Your task to perform on an android device: open app "Facebook Messenger" (install if not already installed), go to login, and select forgot password Image 0: 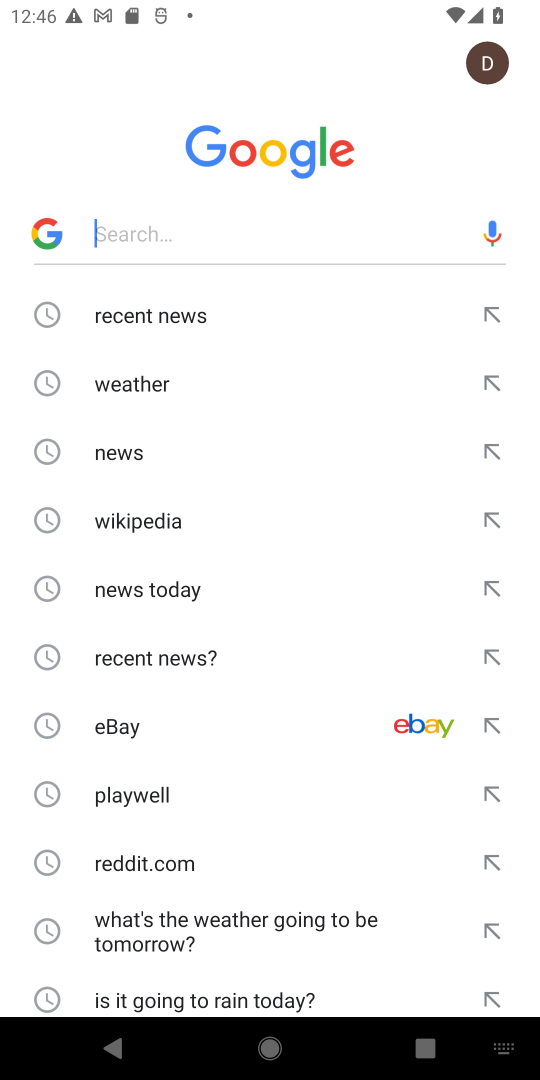
Step 0: press home button
Your task to perform on an android device: open app "Facebook Messenger" (install if not already installed), go to login, and select forgot password Image 1: 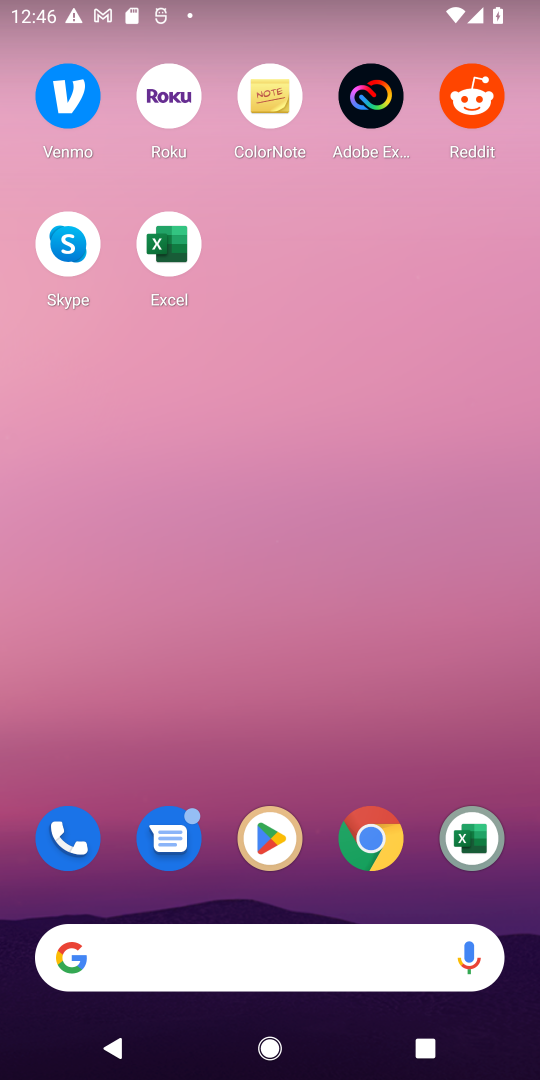
Step 1: click (243, 201)
Your task to perform on an android device: open app "Facebook Messenger" (install if not already installed), go to login, and select forgot password Image 2: 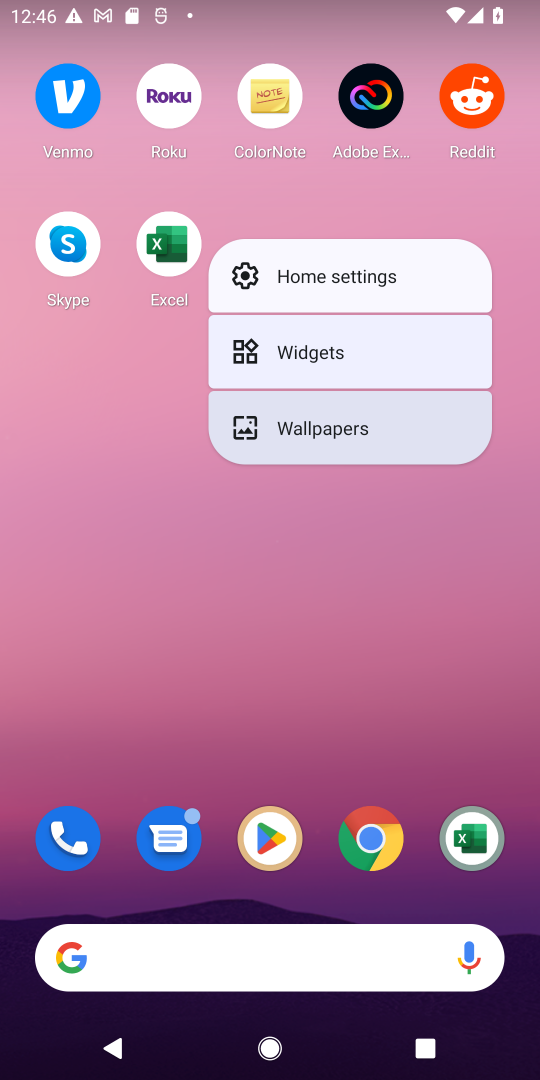
Step 2: click (121, 690)
Your task to perform on an android device: open app "Facebook Messenger" (install if not already installed), go to login, and select forgot password Image 3: 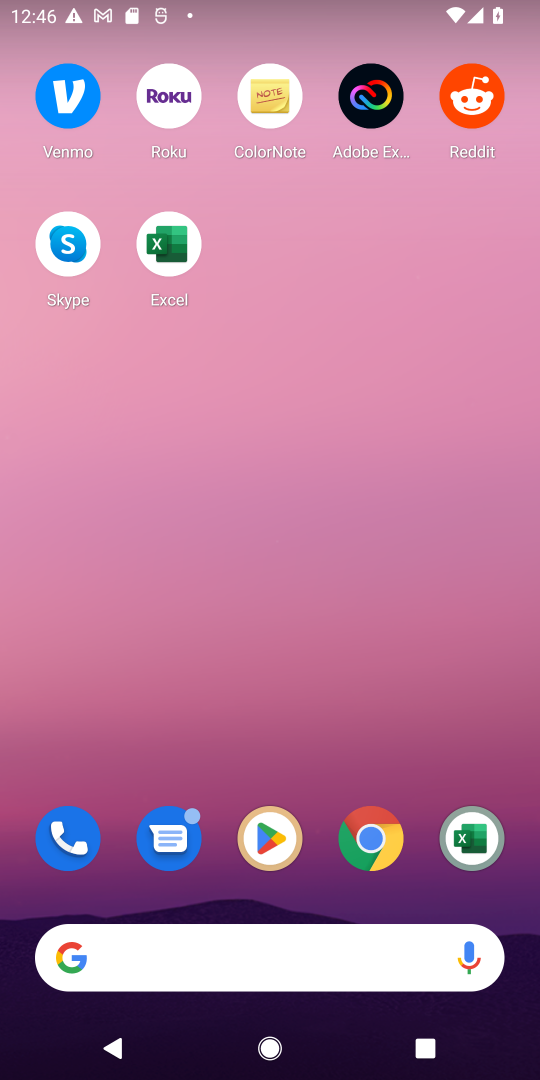
Step 3: drag from (247, 916) to (87, 51)
Your task to perform on an android device: open app "Facebook Messenger" (install if not already installed), go to login, and select forgot password Image 4: 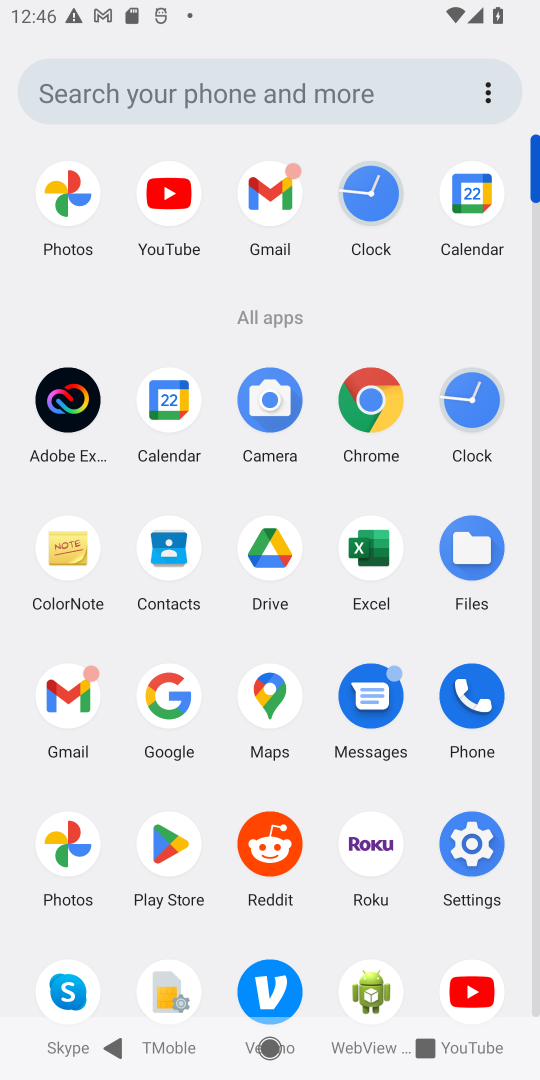
Step 4: click (162, 839)
Your task to perform on an android device: open app "Facebook Messenger" (install if not already installed), go to login, and select forgot password Image 5: 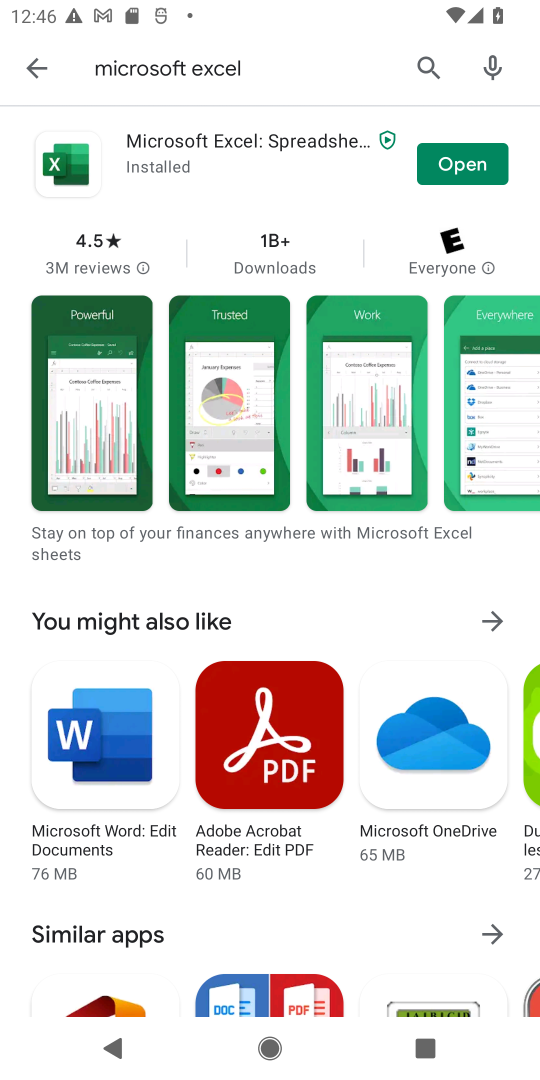
Step 5: click (426, 70)
Your task to perform on an android device: open app "Facebook Messenger" (install if not already installed), go to login, and select forgot password Image 6: 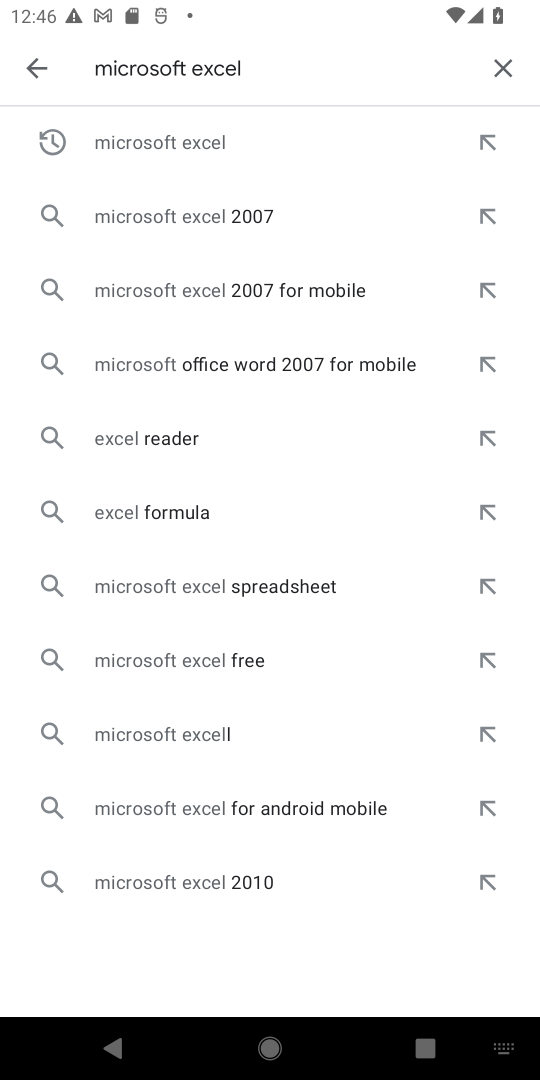
Step 6: click (496, 63)
Your task to perform on an android device: open app "Facebook Messenger" (install if not already installed), go to login, and select forgot password Image 7: 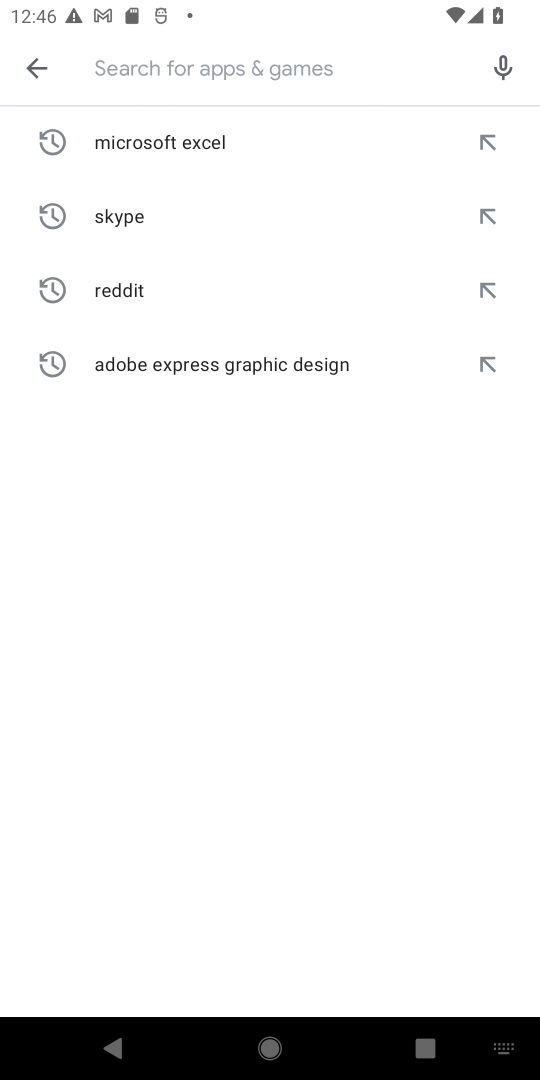
Step 7: type "Facebook Messenger"
Your task to perform on an android device: open app "Facebook Messenger" (install if not already installed), go to login, and select forgot password Image 8: 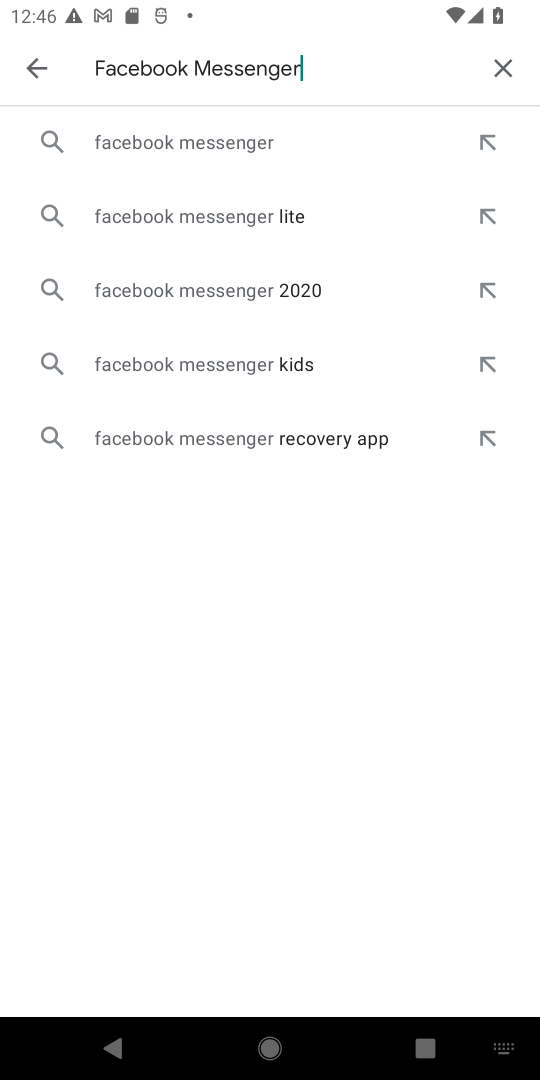
Step 8: click (196, 136)
Your task to perform on an android device: open app "Facebook Messenger" (install if not already installed), go to login, and select forgot password Image 9: 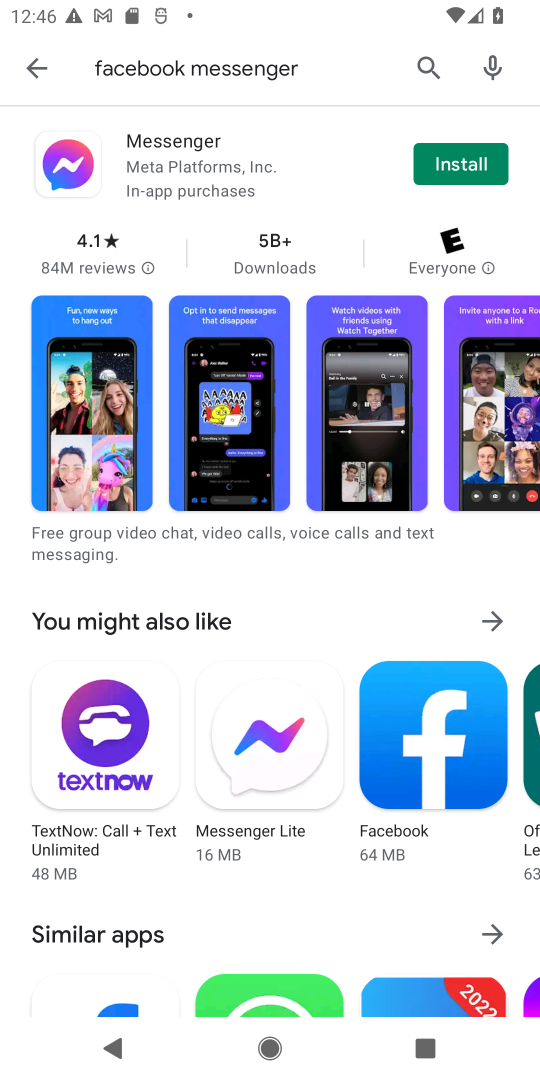
Step 9: click (469, 178)
Your task to perform on an android device: open app "Facebook Messenger" (install if not already installed), go to login, and select forgot password Image 10: 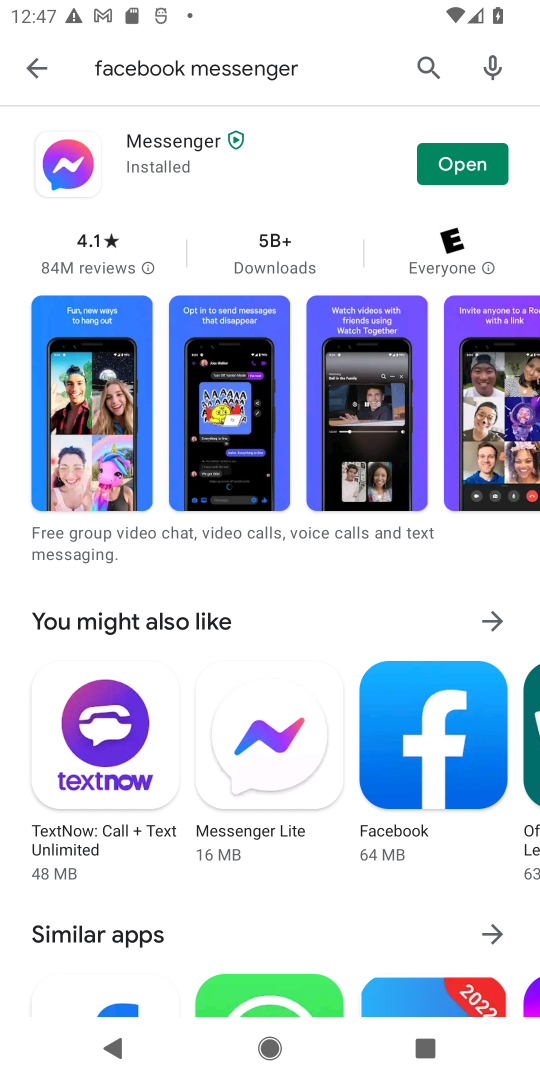
Step 10: click (463, 173)
Your task to perform on an android device: open app "Facebook Messenger" (install if not already installed), go to login, and select forgot password Image 11: 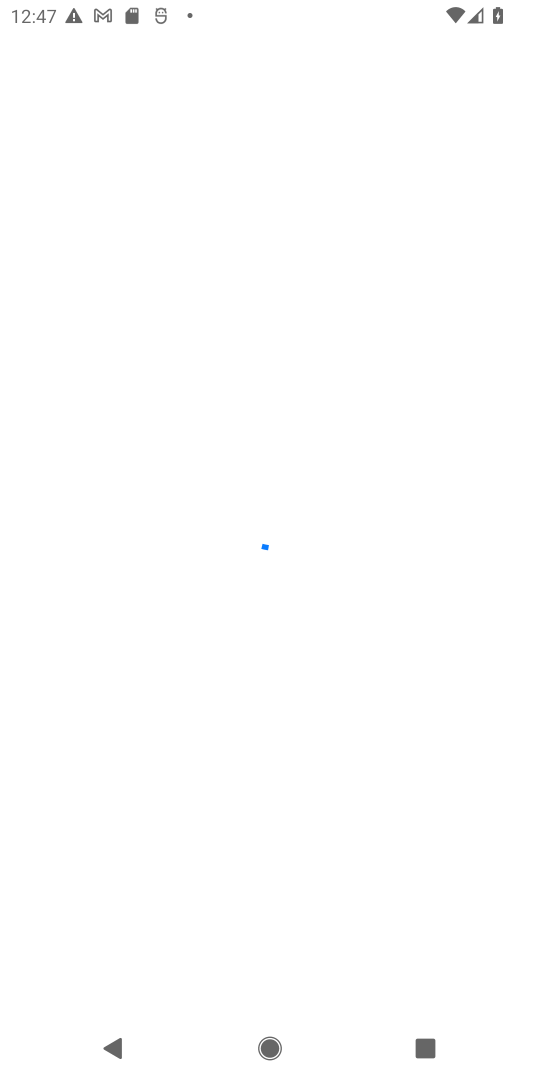
Step 11: task complete